Your task to perform on an android device: Go to Google Image 0: 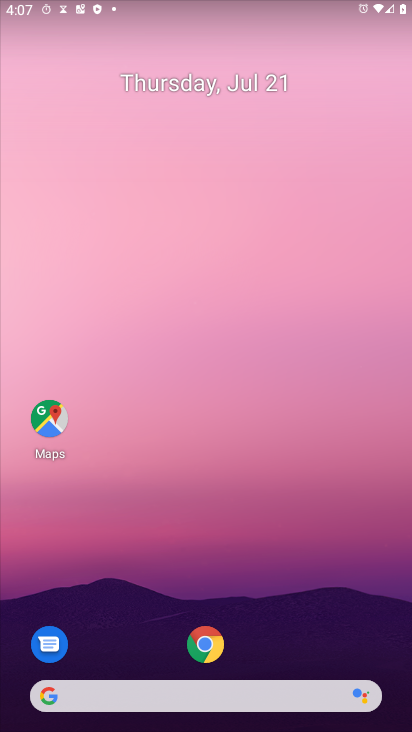
Step 0: press home button
Your task to perform on an android device: Go to Google Image 1: 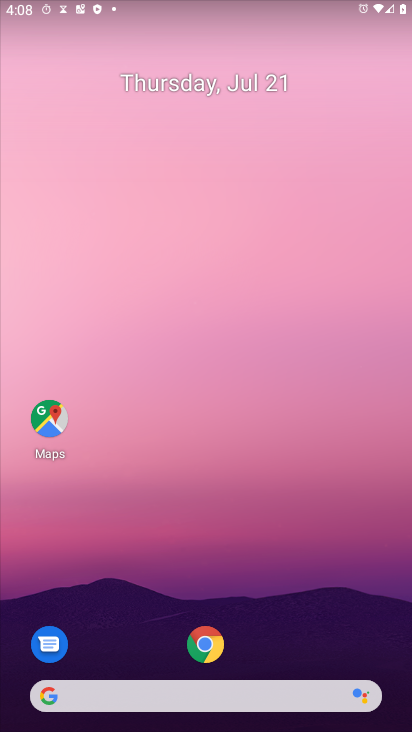
Step 1: click (49, 703)
Your task to perform on an android device: Go to Google Image 2: 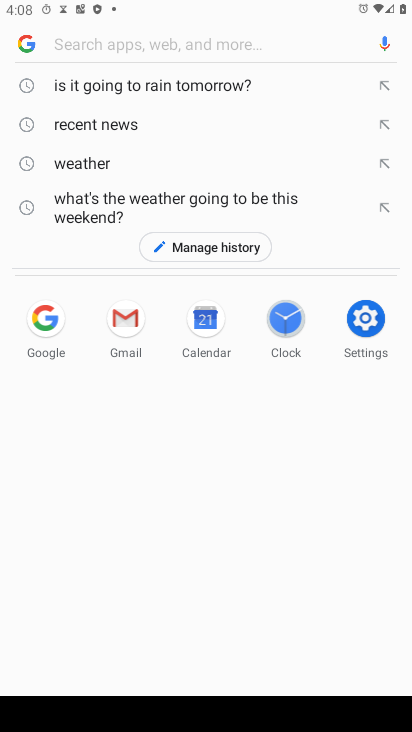
Step 2: task complete